Your task to perform on an android device: Search for sushi restaurants on Maps Image 0: 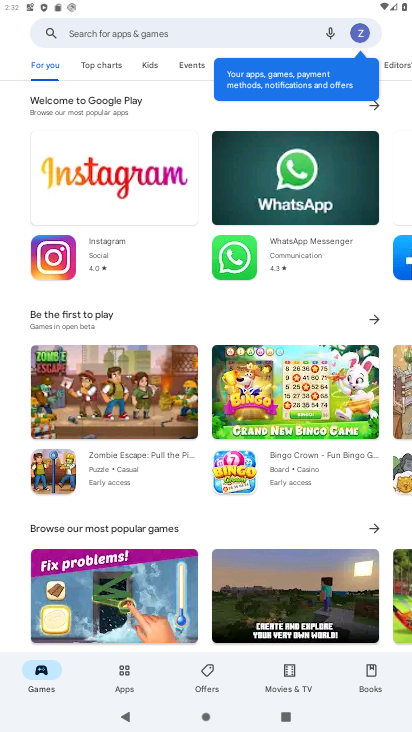
Step 0: press home button
Your task to perform on an android device: Search for sushi restaurants on Maps Image 1: 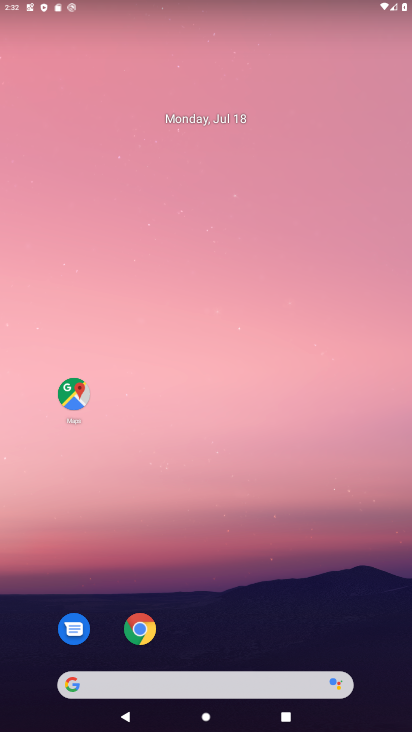
Step 1: click (59, 404)
Your task to perform on an android device: Search for sushi restaurants on Maps Image 2: 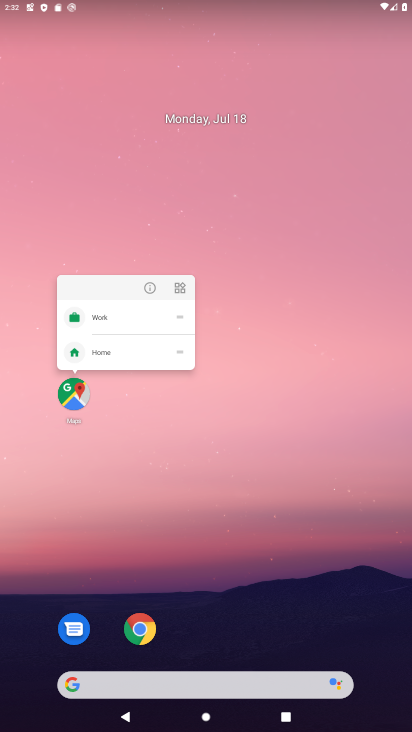
Step 2: click (78, 398)
Your task to perform on an android device: Search for sushi restaurants on Maps Image 3: 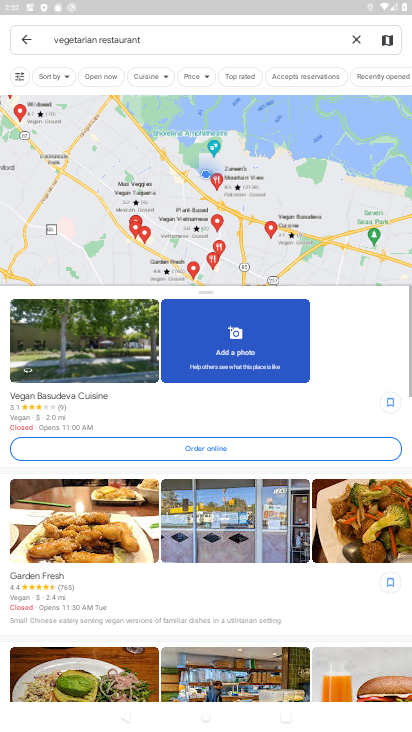
Step 3: click (356, 39)
Your task to perform on an android device: Search for sushi restaurants on Maps Image 4: 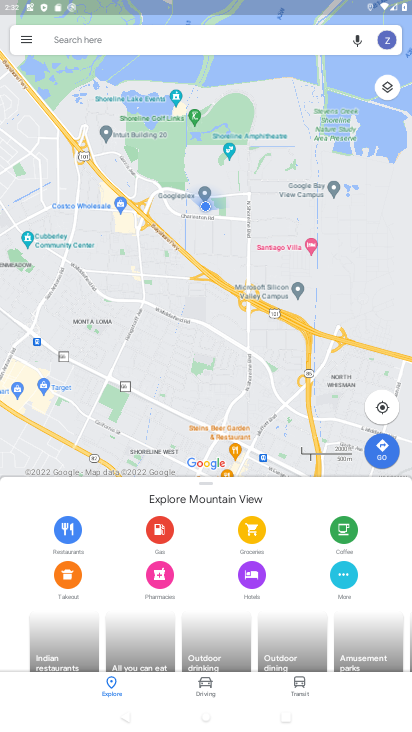
Step 4: click (118, 40)
Your task to perform on an android device: Search for sushi restaurants on Maps Image 5: 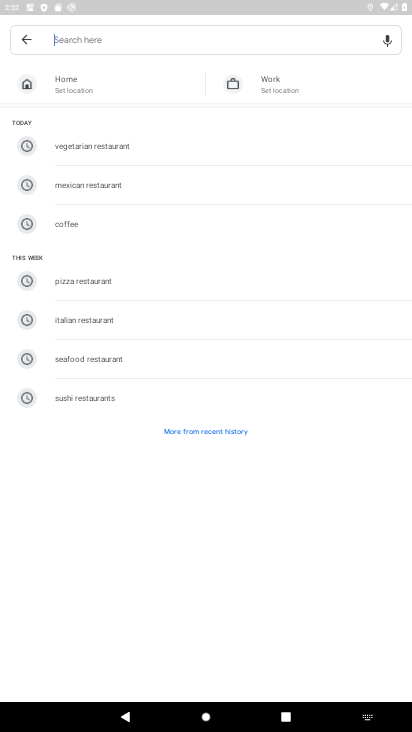
Step 5: type "sushi restaurants"
Your task to perform on an android device: Search for sushi restaurants on Maps Image 6: 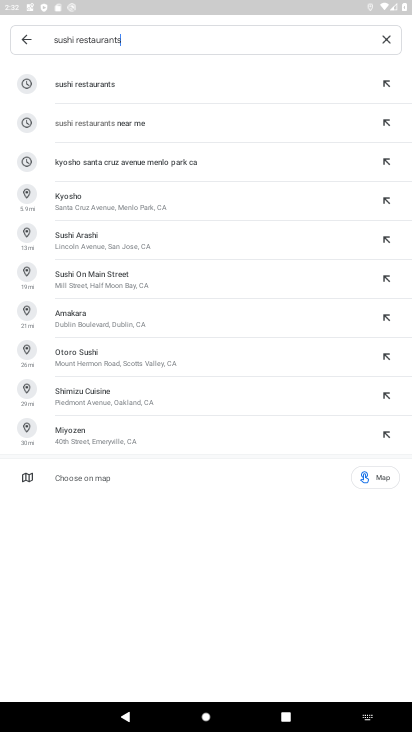
Step 6: click (120, 93)
Your task to perform on an android device: Search for sushi restaurants on Maps Image 7: 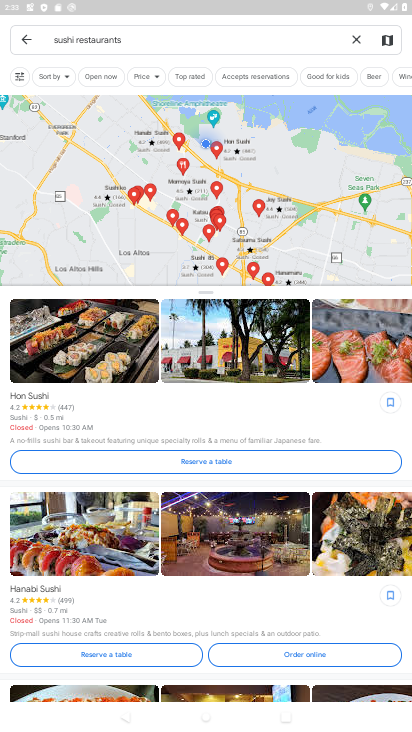
Step 7: task complete